Your task to perform on an android device: change alarm snooze length Image 0: 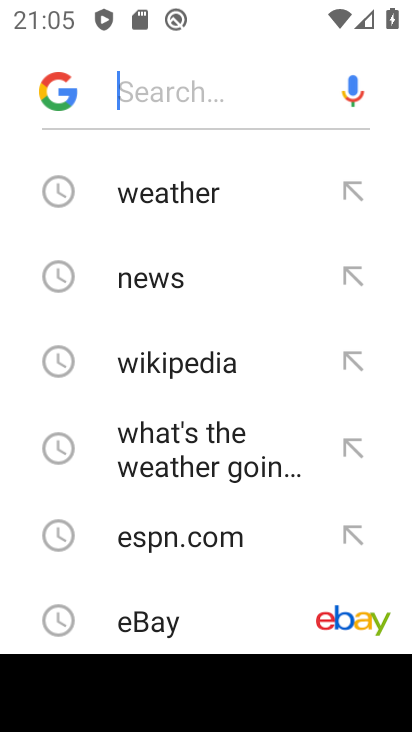
Step 0: press home button
Your task to perform on an android device: change alarm snooze length Image 1: 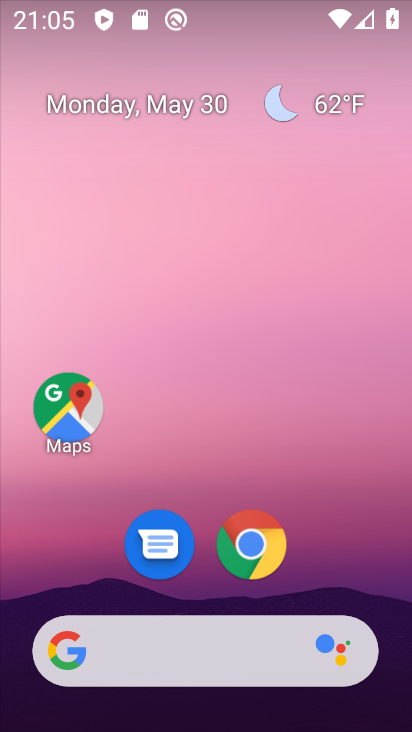
Step 1: drag from (341, 559) to (267, 209)
Your task to perform on an android device: change alarm snooze length Image 2: 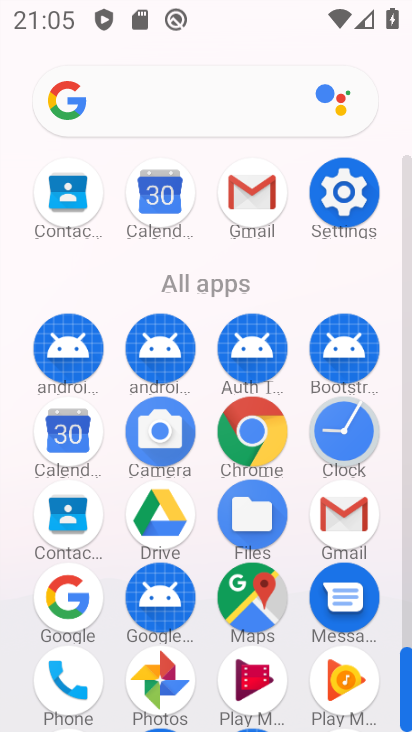
Step 2: click (347, 429)
Your task to perform on an android device: change alarm snooze length Image 3: 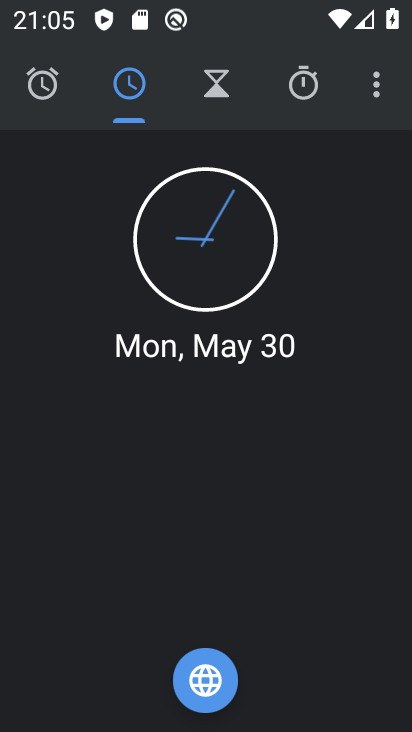
Step 3: click (378, 85)
Your task to perform on an android device: change alarm snooze length Image 4: 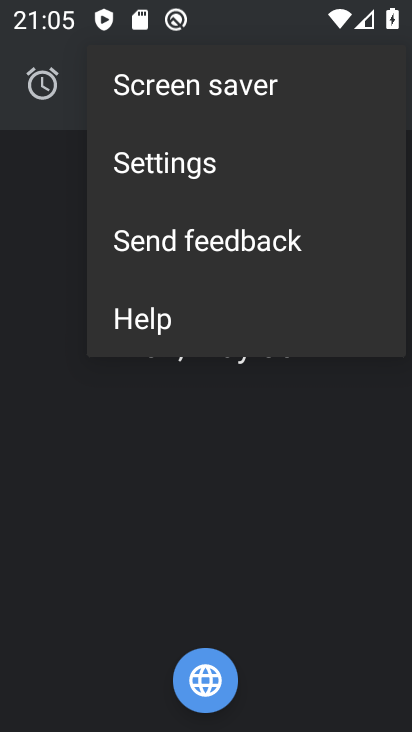
Step 4: click (187, 159)
Your task to perform on an android device: change alarm snooze length Image 5: 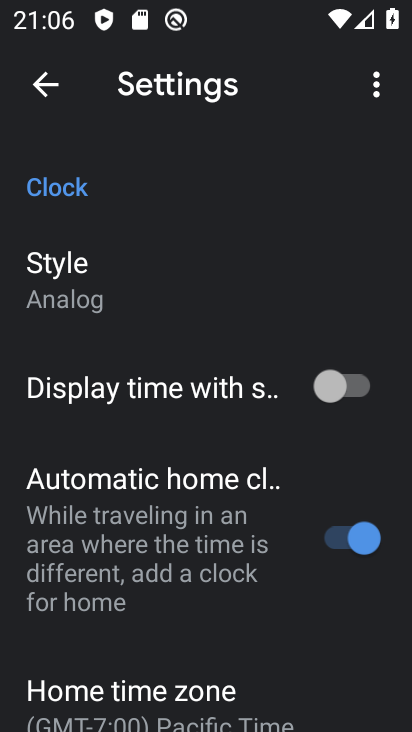
Step 5: drag from (164, 430) to (187, 308)
Your task to perform on an android device: change alarm snooze length Image 6: 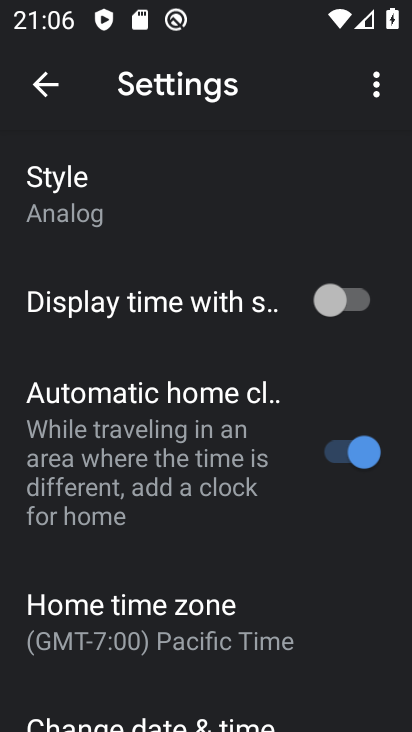
Step 6: drag from (117, 558) to (179, 455)
Your task to perform on an android device: change alarm snooze length Image 7: 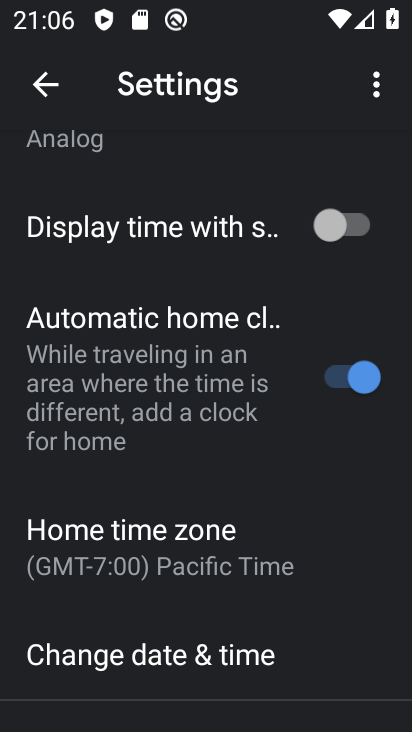
Step 7: drag from (117, 607) to (175, 497)
Your task to perform on an android device: change alarm snooze length Image 8: 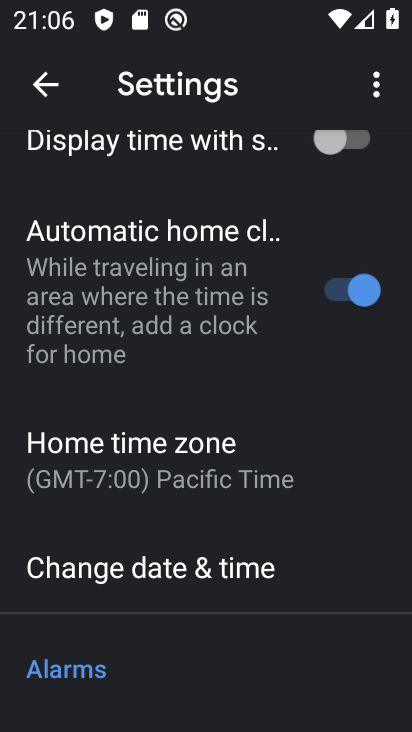
Step 8: drag from (159, 641) to (240, 477)
Your task to perform on an android device: change alarm snooze length Image 9: 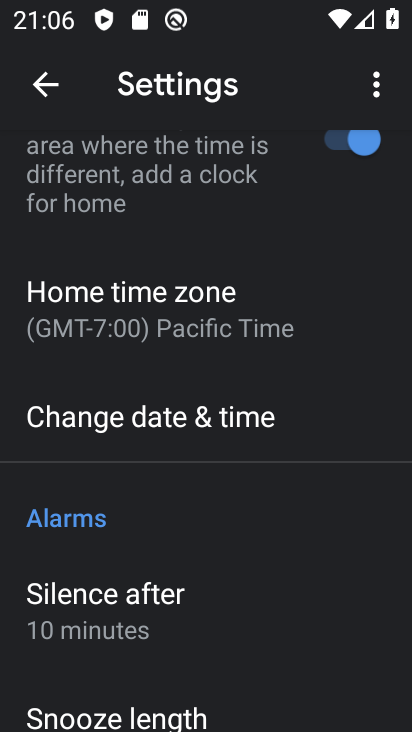
Step 9: drag from (206, 619) to (304, 474)
Your task to perform on an android device: change alarm snooze length Image 10: 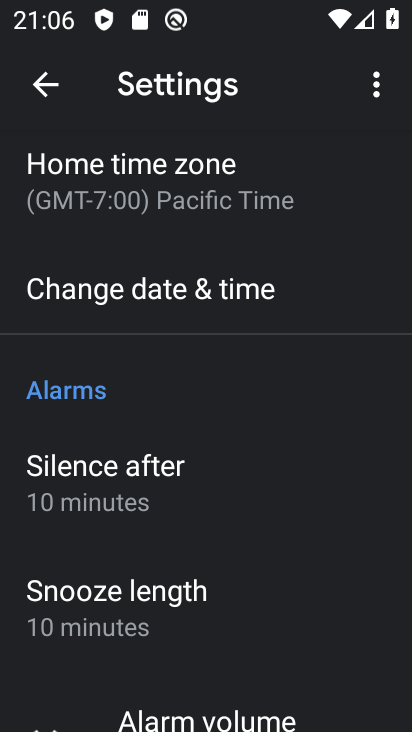
Step 10: click (171, 598)
Your task to perform on an android device: change alarm snooze length Image 11: 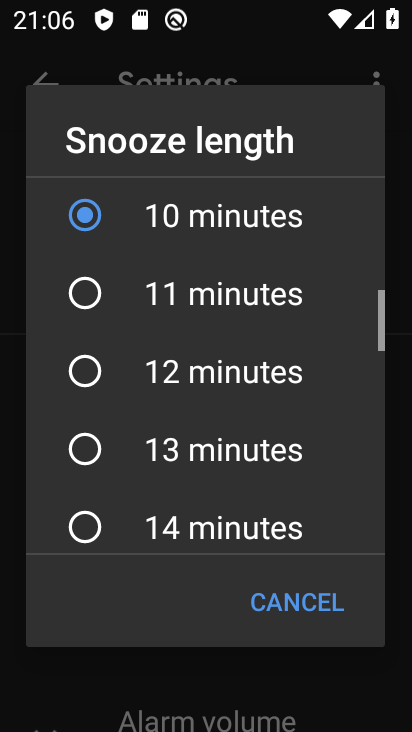
Step 11: drag from (214, 332) to (208, 458)
Your task to perform on an android device: change alarm snooze length Image 12: 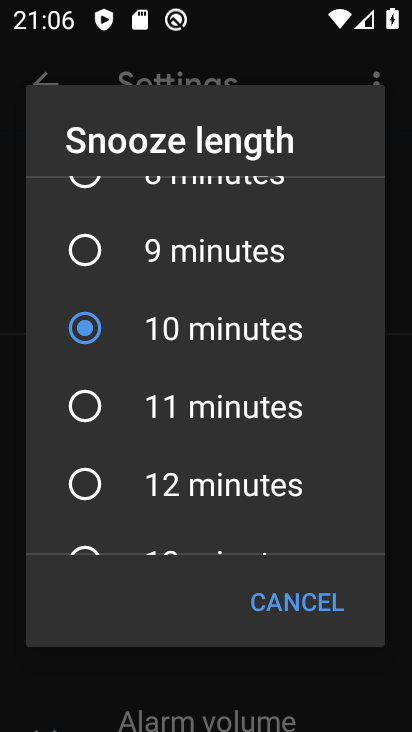
Step 12: drag from (226, 294) to (236, 400)
Your task to perform on an android device: change alarm snooze length Image 13: 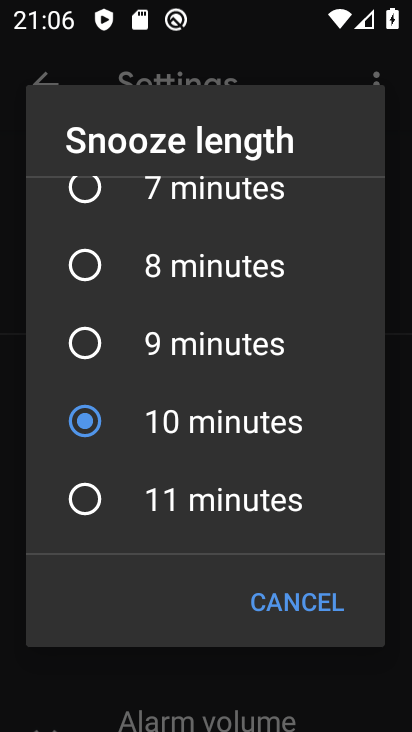
Step 13: drag from (235, 283) to (243, 415)
Your task to perform on an android device: change alarm snooze length Image 14: 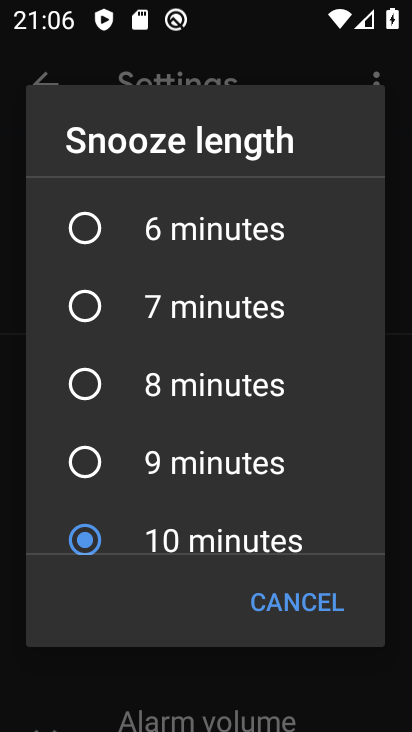
Step 14: drag from (214, 279) to (225, 418)
Your task to perform on an android device: change alarm snooze length Image 15: 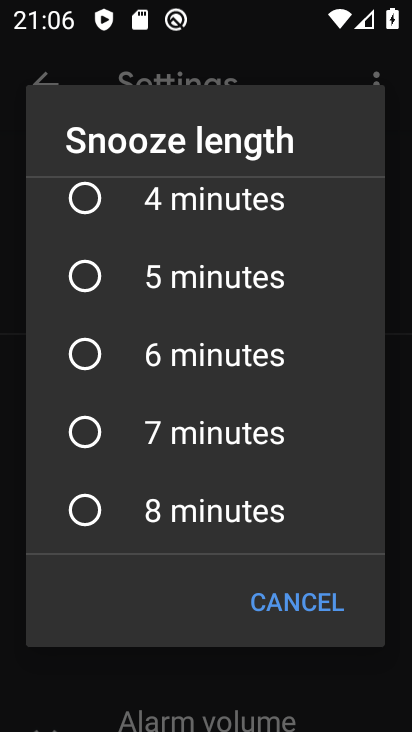
Step 15: drag from (220, 273) to (228, 376)
Your task to perform on an android device: change alarm snooze length Image 16: 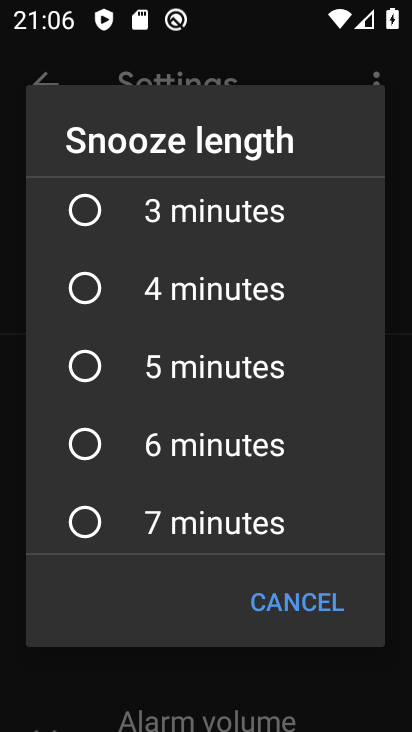
Step 16: click (91, 212)
Your task to perform on an android device: change alarm snooze length Image 17: 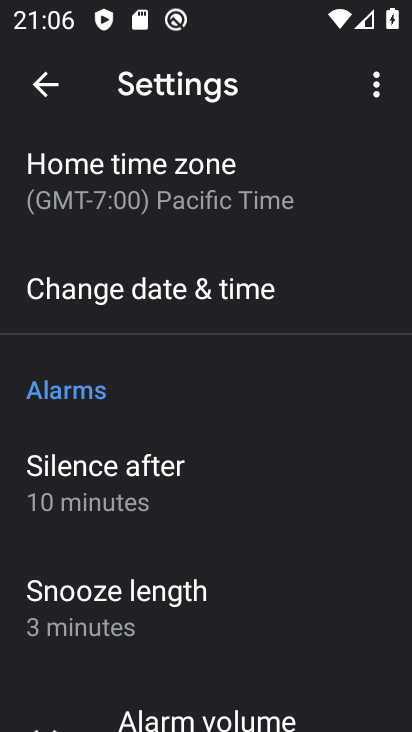
Step 17: task complete